Your task to perform on an android device: Open my contact list Image 0: 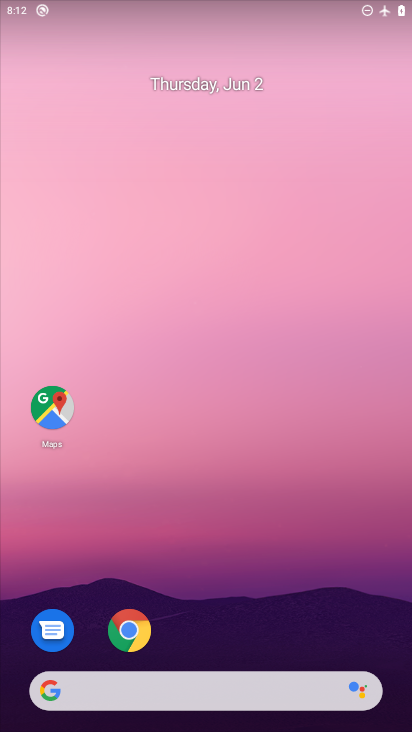
Step 0: drag from (146, 684) to (188, 14)
Your task to perform on an android device: Open my contact list Image 1: 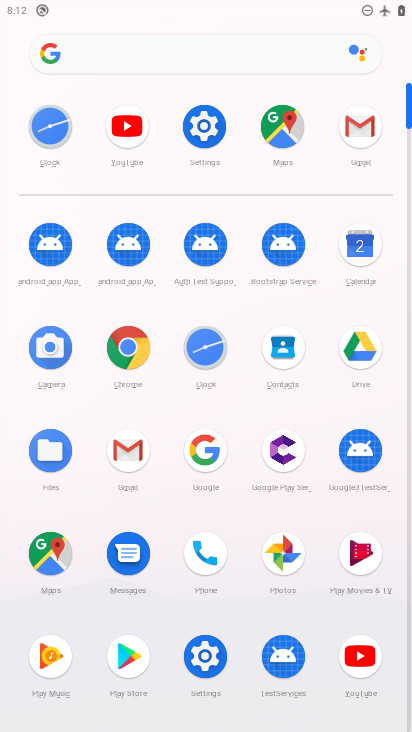
Step 1: click (286, 346)
Your task to perform on an android device: Open my contact list Image 2: 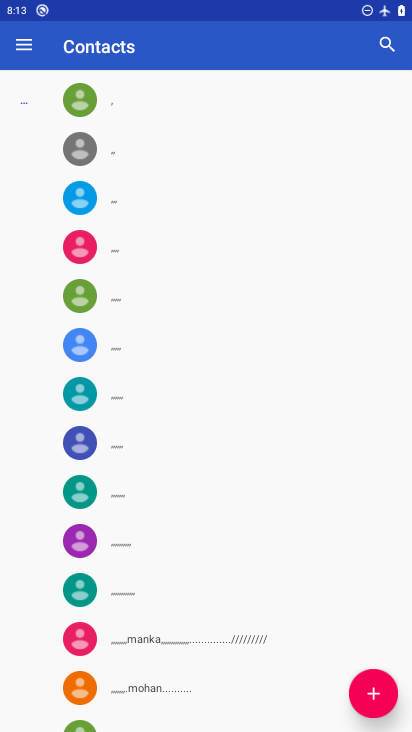
Step 2: task complete